Your task to perform on an android device: Open notification settings Image 0: 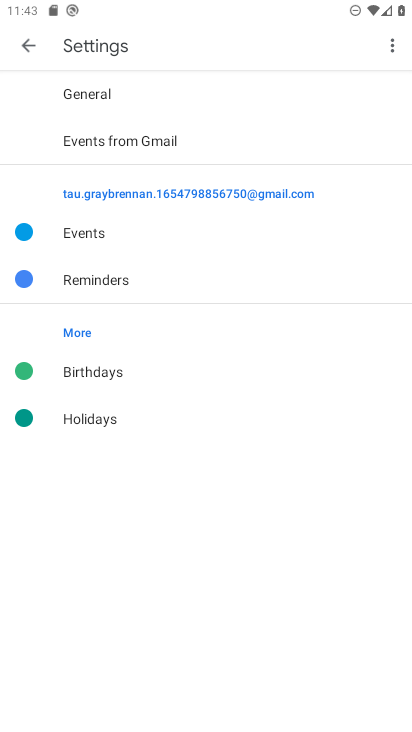
Step 0: press home button
Your task to perform on an android device: Open notification settings Image 1: 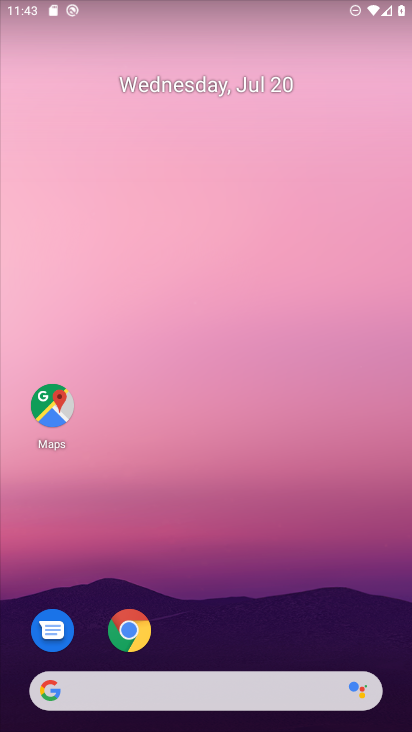
Step 1: drag from (253, 656) to (254, 275)
Your task to perform on an android device: Open notification settings Image 2: 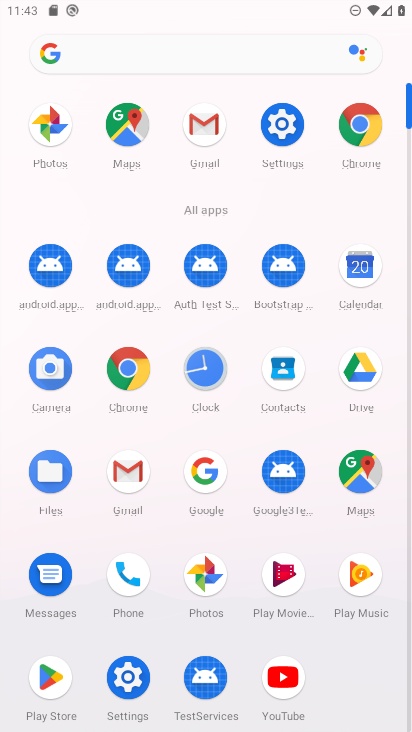
Step 2: click (128, 679)
Your task to perform on an android device: Open notification settings Image 3: 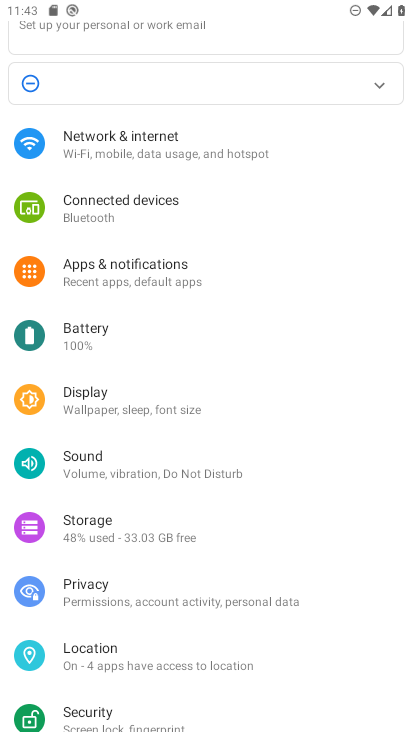
Step 3: click (165, 276)
Your task to perform on an android device: Open notification settings Image 4: 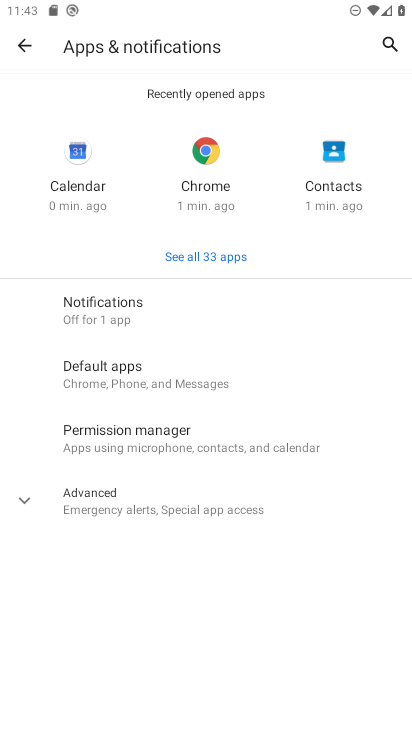
Step 4: click (109, 311)
Your task to perform on an android device: Open notification settings Image 5: 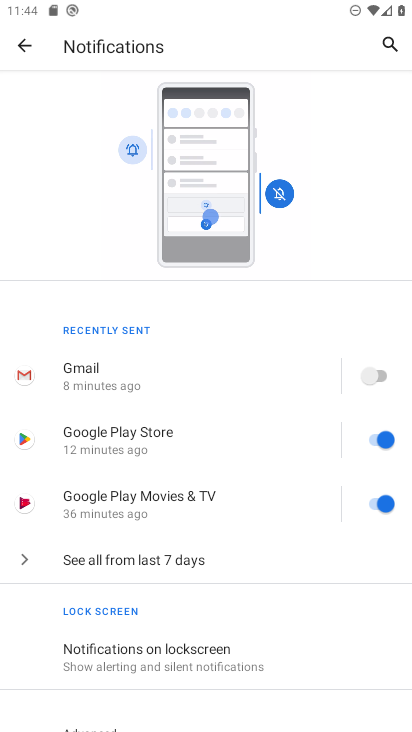
Step 5: task complete